Your task to perform on an android device: open wifi settings Image 0: 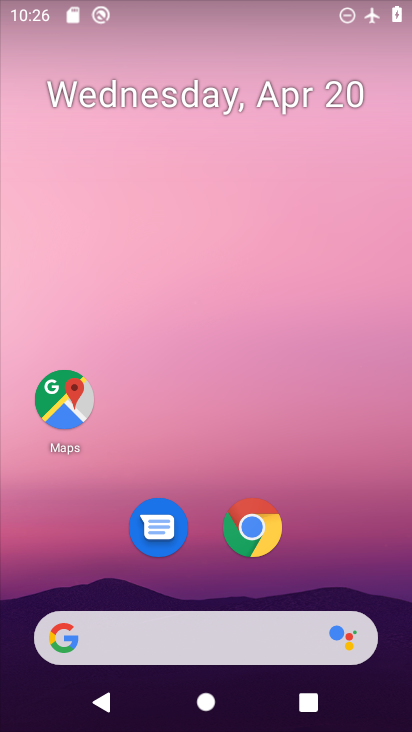
Step 0: click (227, 284)
Your task to perform on an android device: open wifi settings Image 1: 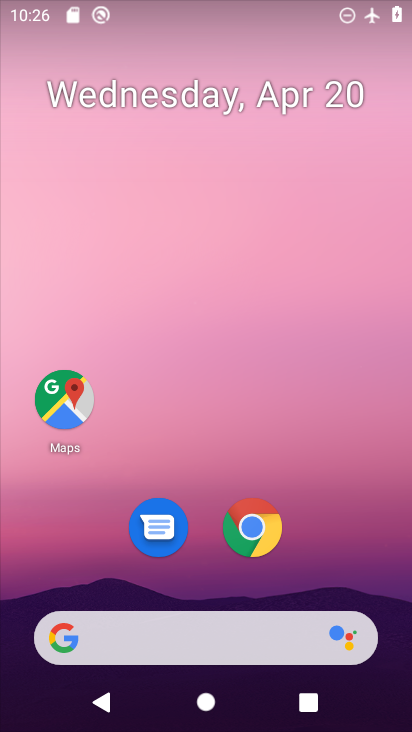
Step 1: drag from (223, 579) to (277, 277)
Your task to perform on an android device: open wifi settings Image 2: 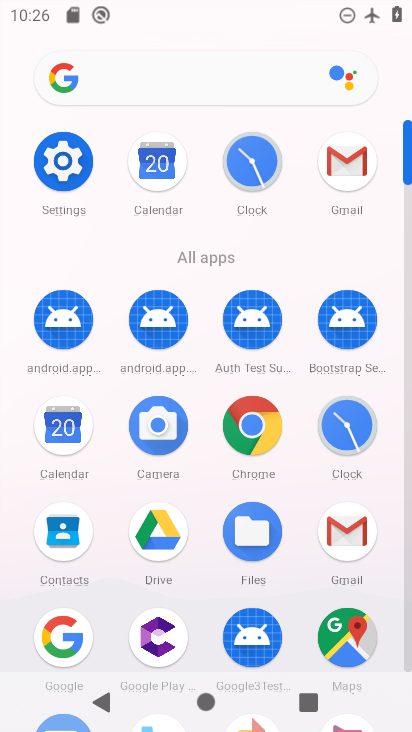
Step 2: click (61, 161)
Your task to perform on an android device: open wifi settings Image 3: 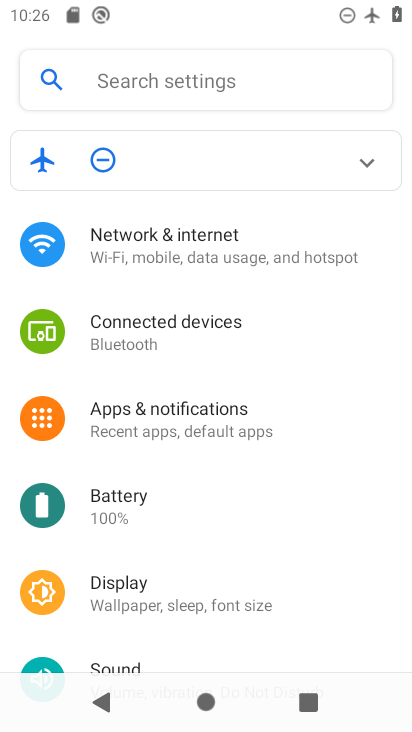
Step 3: click (206, 257)
Your task to perform on an android device: open wifi settings Image 4: 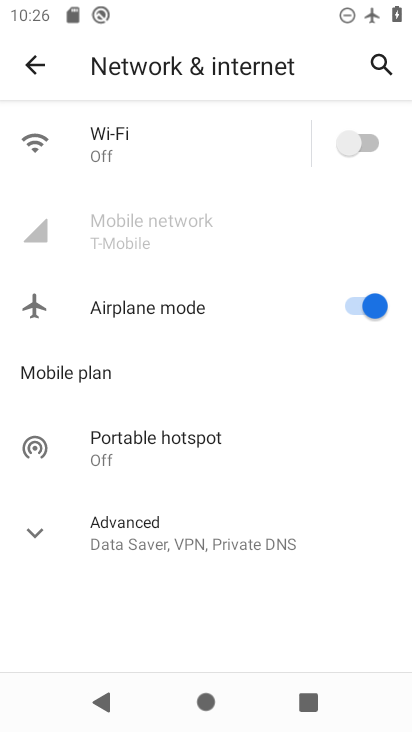
Step 4: click (123, 248)
Your task to perform on an android device: open wifi settings Image 5: 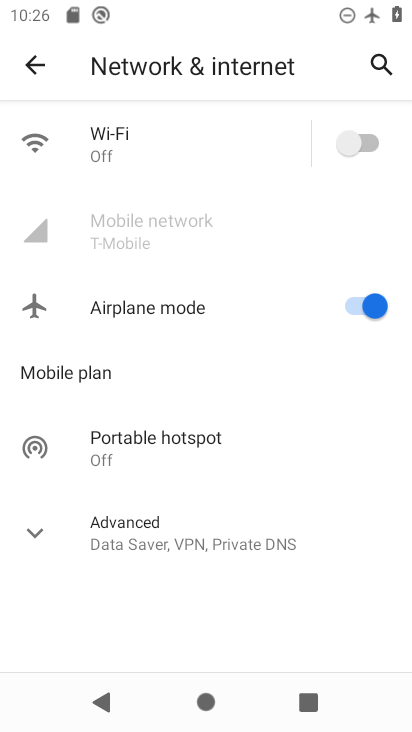
Step 5: click (123, 137)
Your task to perform on an android device: open wifi settings Image 6: 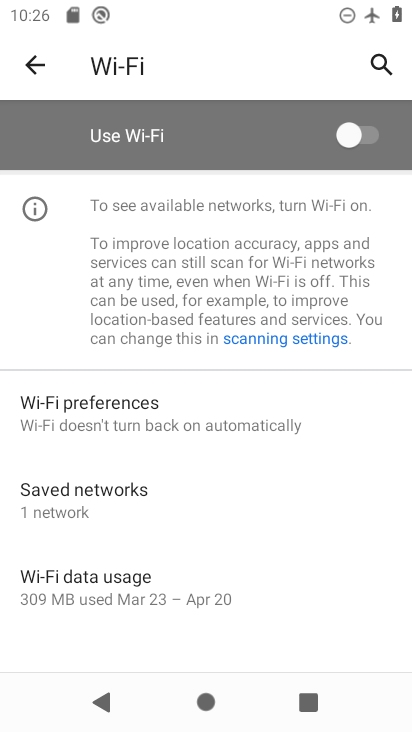
Step 6: task complete